Your task to perform on an android device: Go to eBay Image 0: 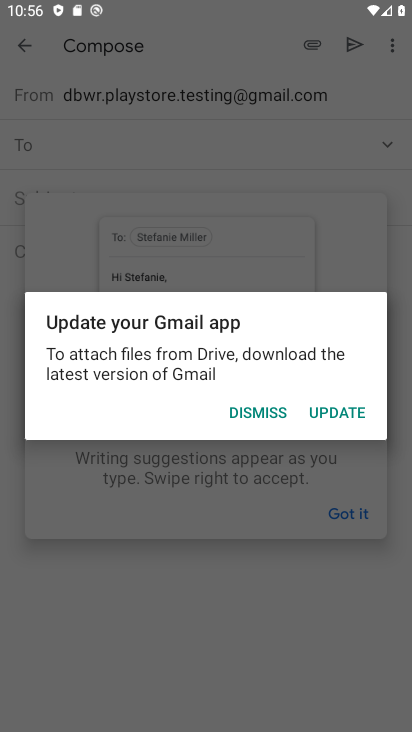
Step 0: press home button
Your task to perform on an android device: Go to eBay Image 1: 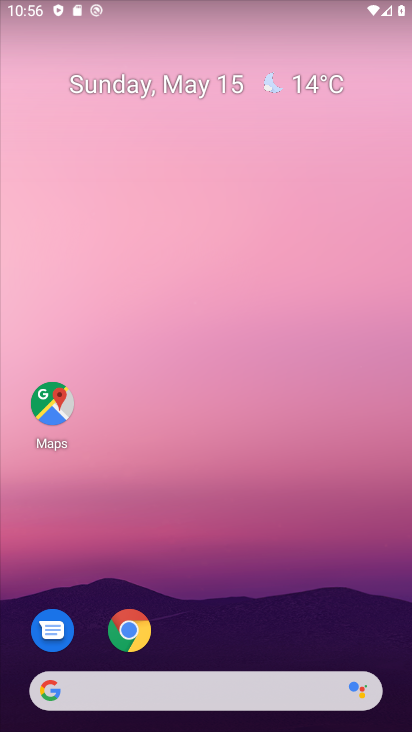
Step 1: click (127, 627)
Your task to perform on an android device: Go to eBay Image 2: 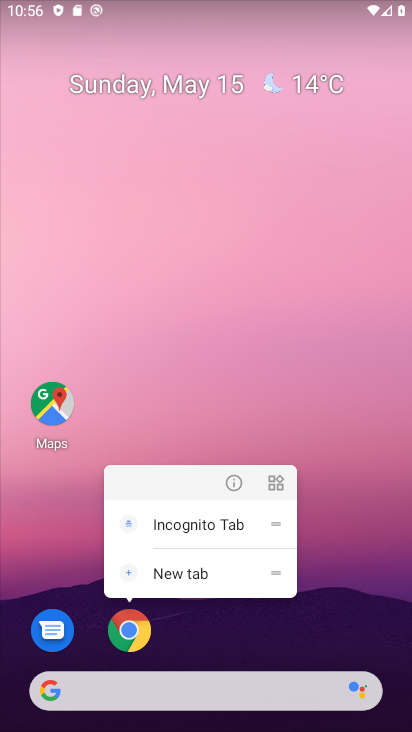
Step 2: click (118, 630)
Your task to perform on an android device: Go to eBay Image 3: 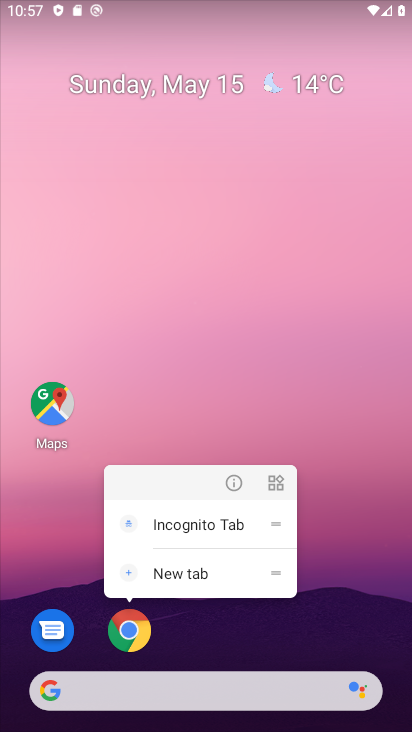
Step 3: click (120, 629)
Your task to perform on an android device: Go to eBay Image 4: 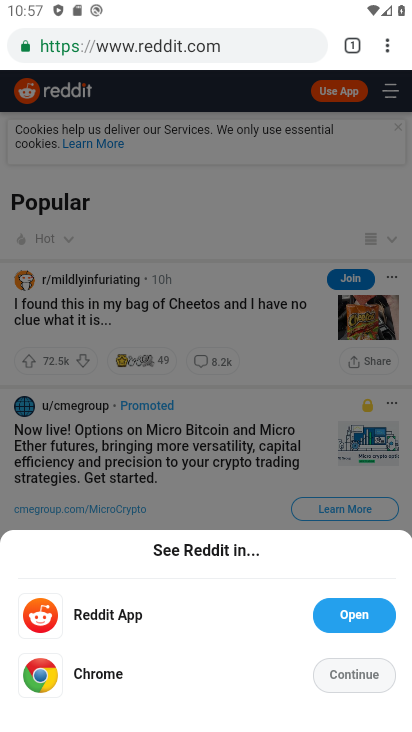
Step 4: press back button
Your task to perform on an android device: Go to eBay Image 5: 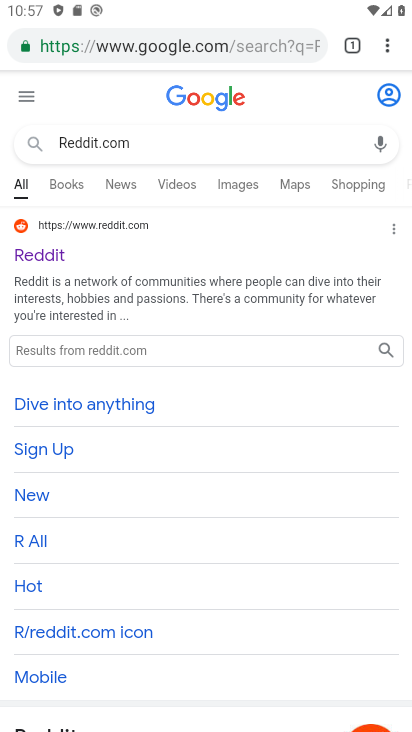
Step 5: press back button
Your task to perform on an android device: Go to eBay Image 6: 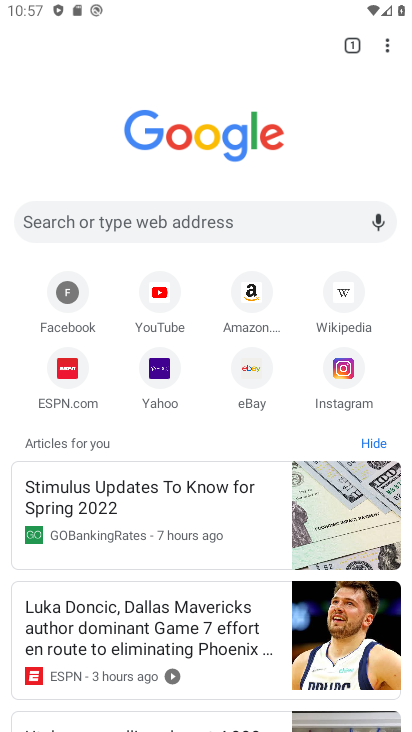
Step 6: press back button
Your task to perform on an android device: Go to eBay Image 7: 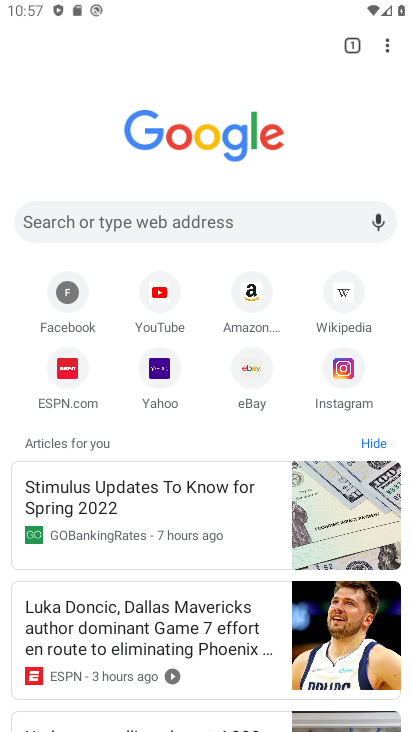
Step 7: click (261, 373)
Your task to perform on an android device: Go to eBay Image 8: 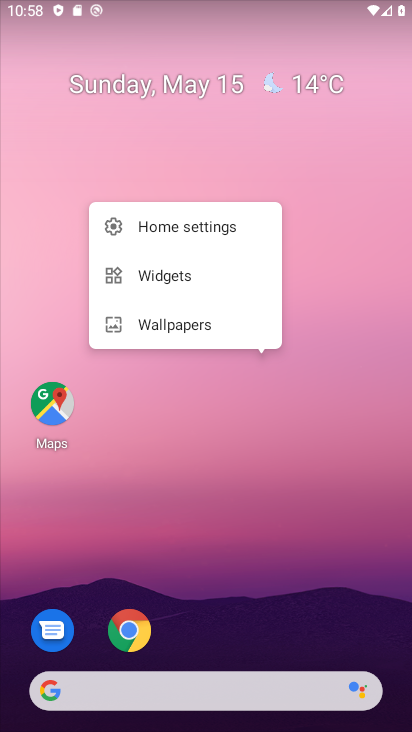
Step 8: click (127, 630)
Your task to perform on an android device: Go to eBay Image 9: 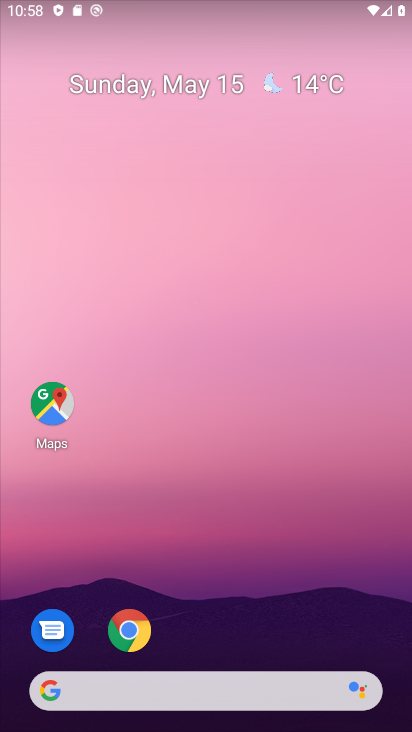
Step 9: click (132, 629)
Your task to perform on an android device: Go to eBay Image 10: 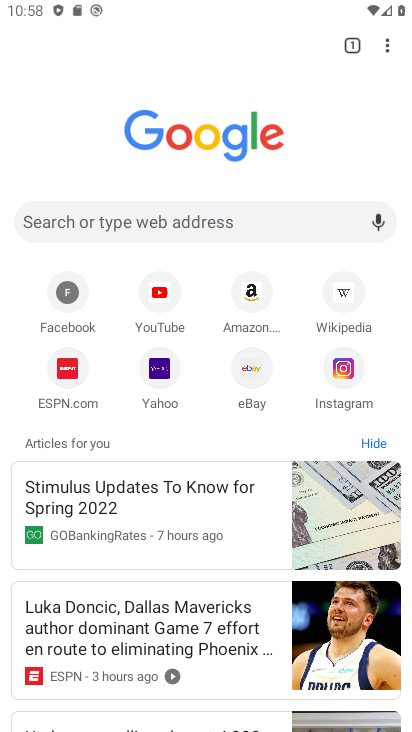
Step 10: click (244, 371)
Your task to perform on an android device: Go to eBay Image 11: 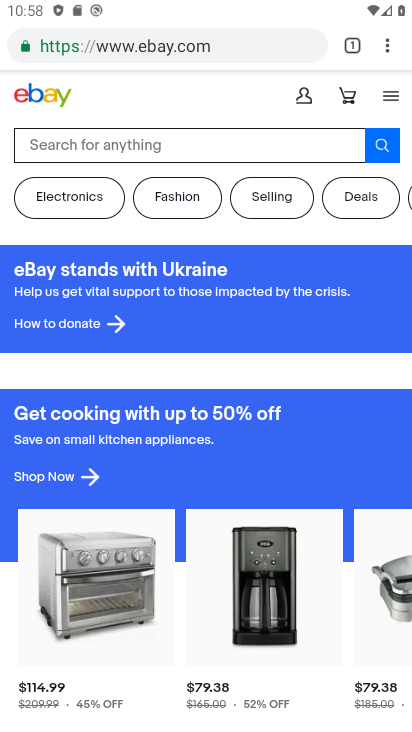
Step 11: task complete